Your task to perform on an android device: Open Amazon Image 0: 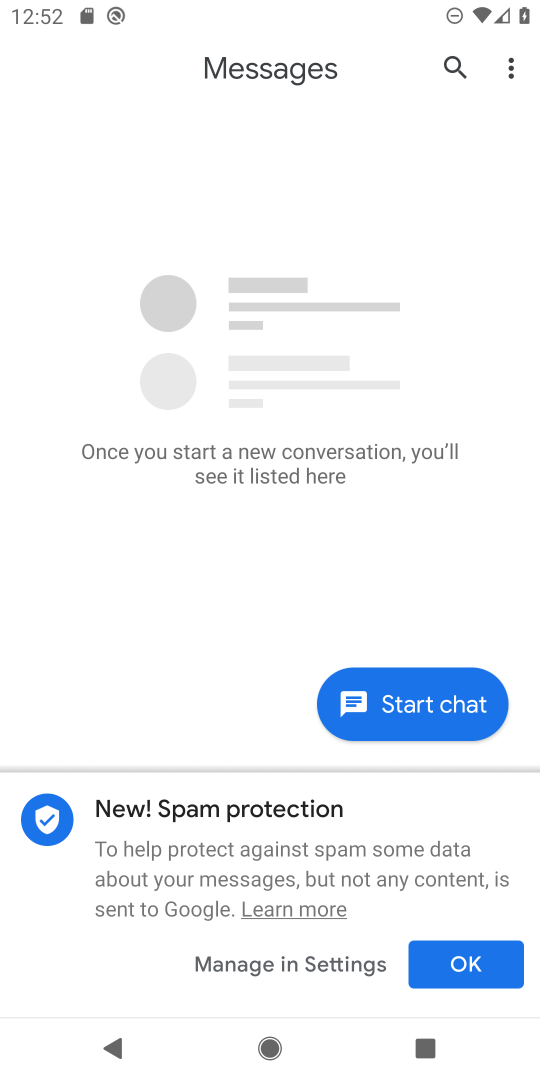
Step 0: press back button
Your task to perform on an android device: Open Amazon Image 1: 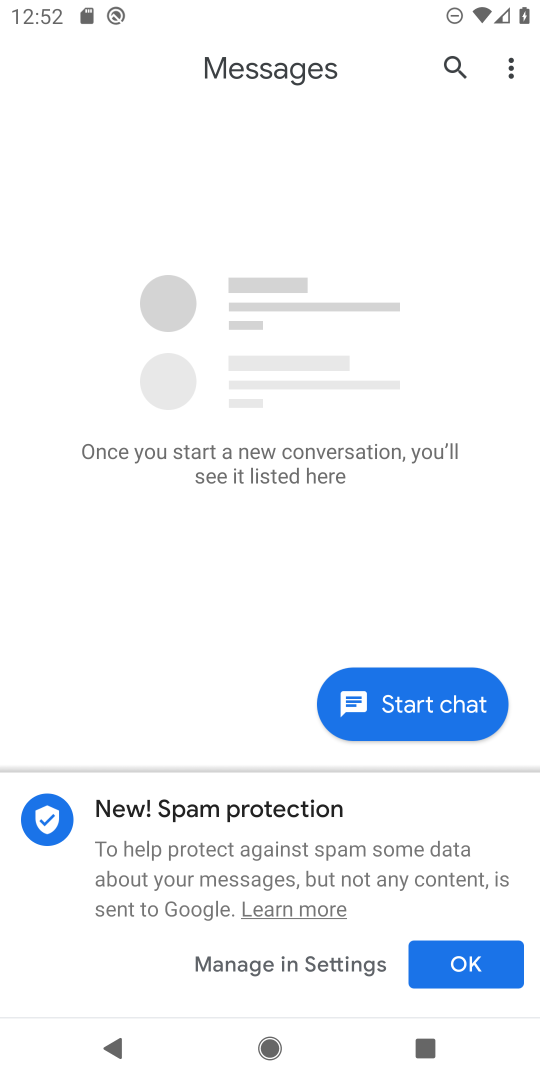
Step 1: press back button
Your task to perform on an android device: Open Amazon Image 2: 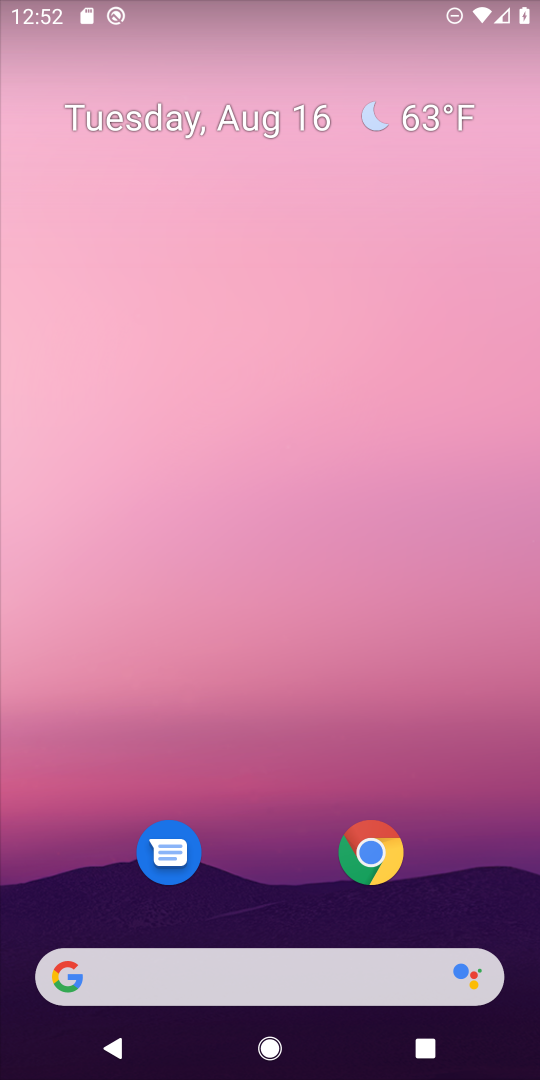
Step 2: click (376, 858)
Your task to perform on an android device: Open Amazon Image 3: 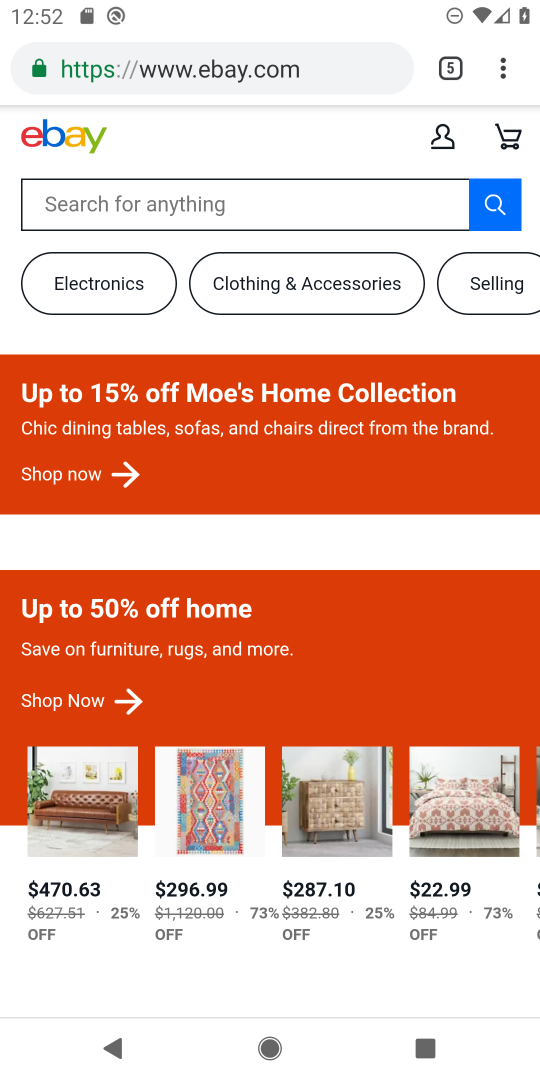
Step 3: click (451, 65)
Your task to perform on an android device: Open Amazon Image 4: 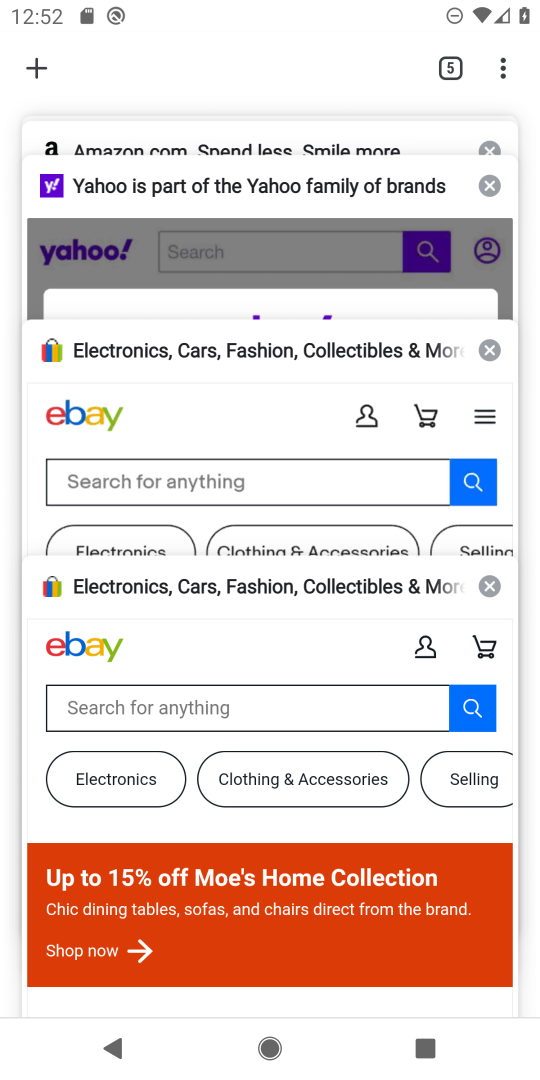
Step 4: drag from (183, 214) to (230, 669)
Your task to perform on an android device: Open Amazon Image 5: 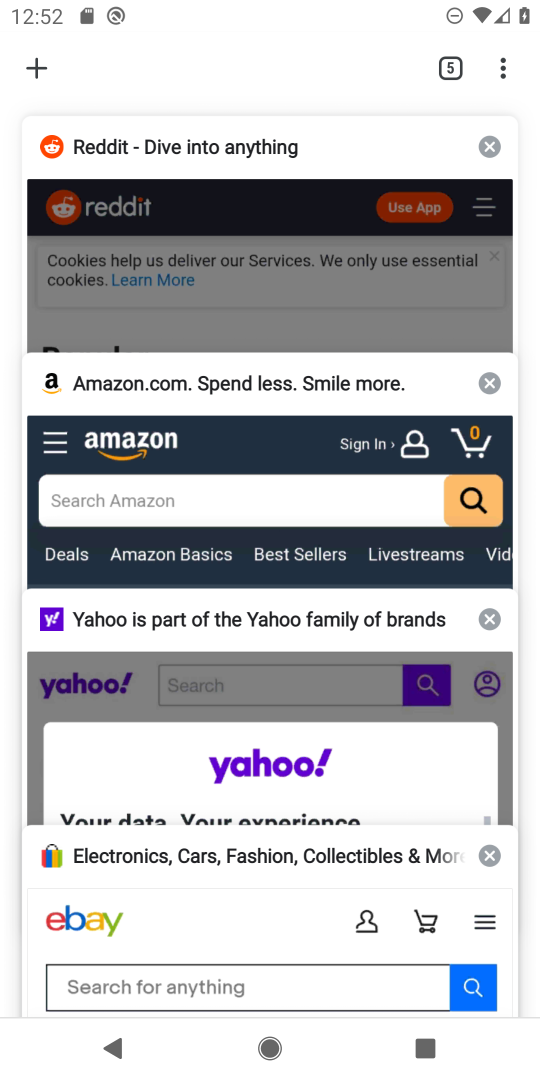
Step 5: click (191, 398)
Your task to perform on an android device: Open Amazon Image 6: 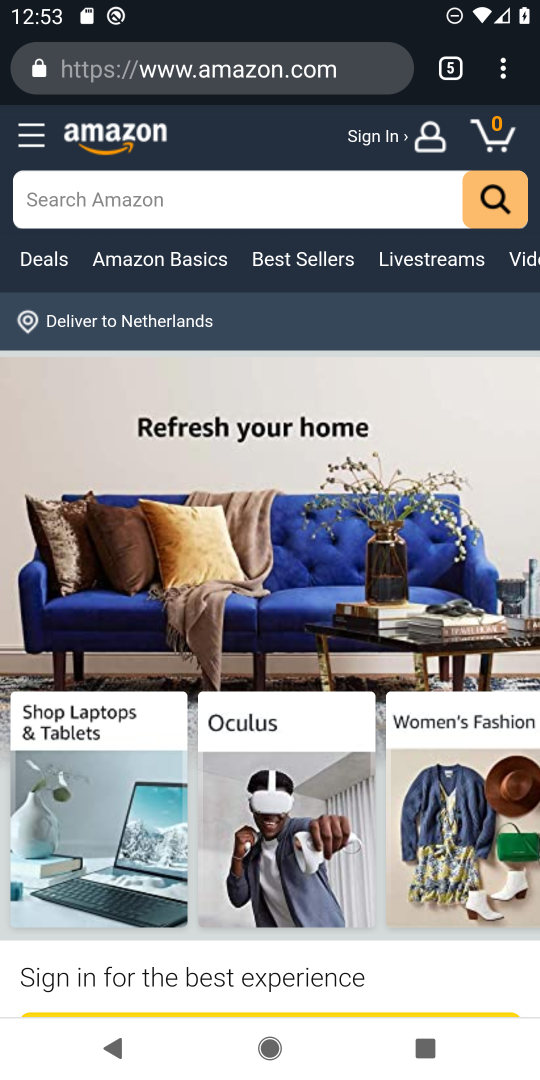
Step 6: task complete